Your task to perform on an android device: Open maps Image 0: 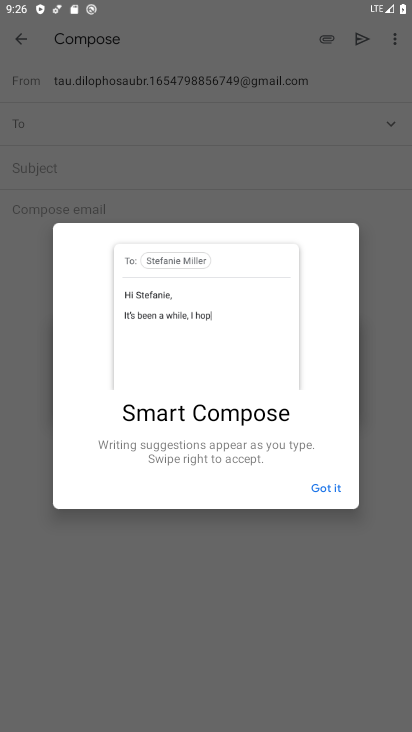
Step 0: press home button
Your task to perform on an android device: Open maps Image 1: 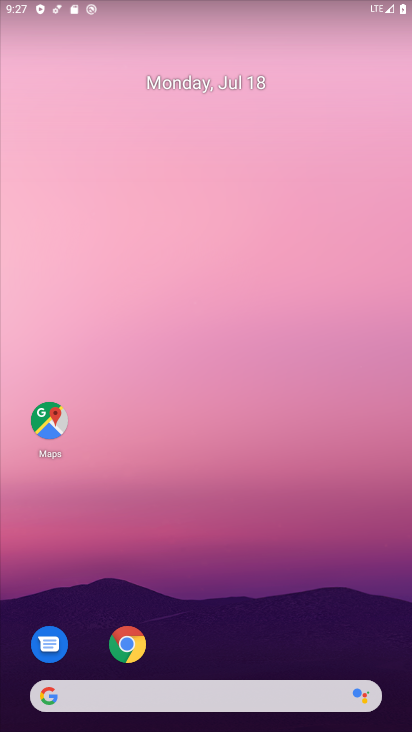
Step 1: drag from (325, 612) to (403, 530)
Your task to perform on an android device: Open maps Image 2: 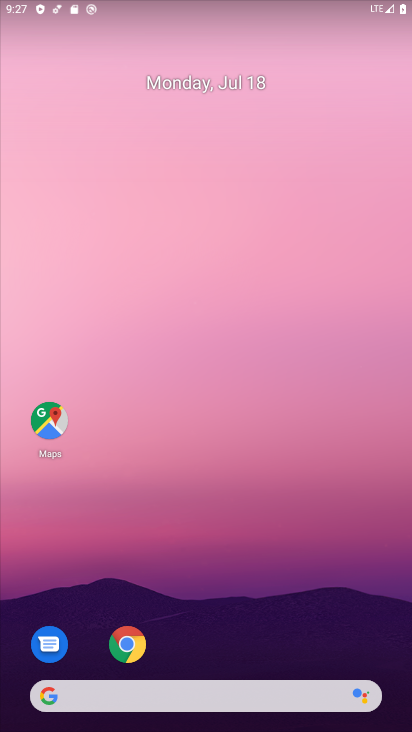
Step 2: drag from (255, 611) to (303, 209)
Your task to perform on an android device: Open maps Image 3: 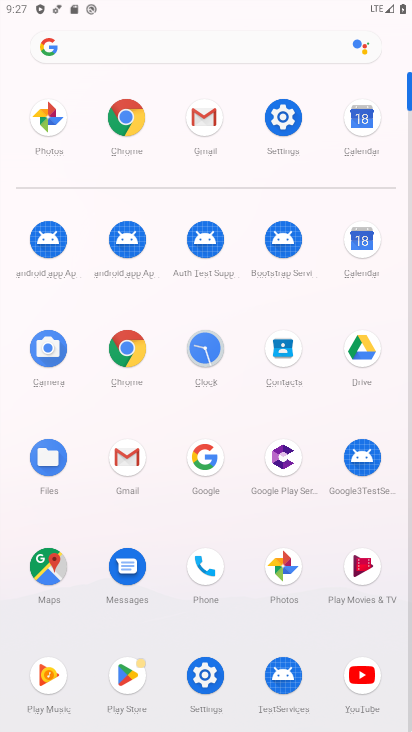
Step 3: click (48, 571)
Your task to perform on an android device: Open maps Image 4: 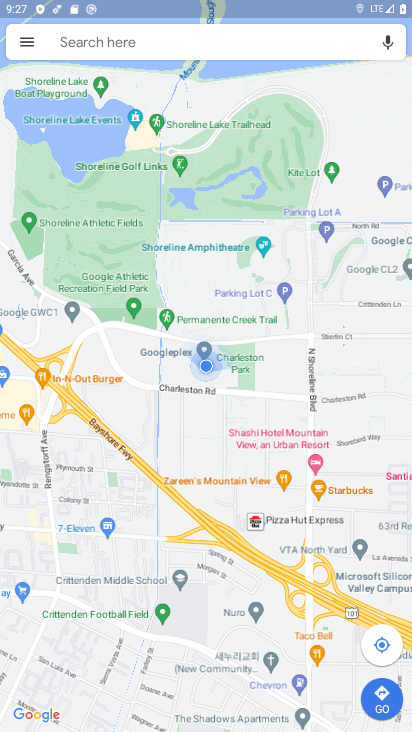
Step 4: task complete